Your task to perform on an android device: check the backup settings in the google photos Image 0: 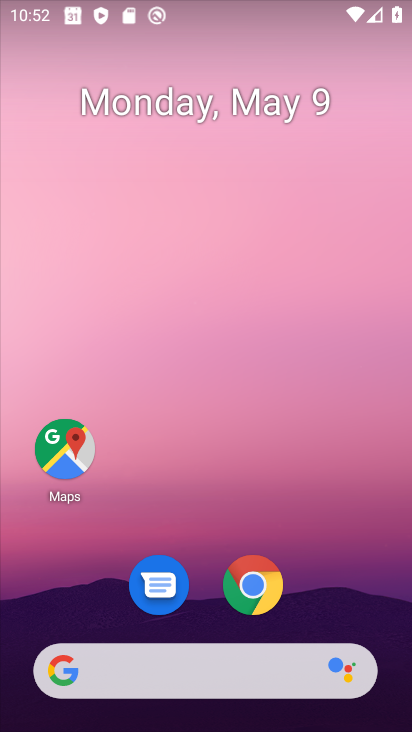
Step 0: drag from (315, 582) to (290, 44)
Your task to perform on an android device: check the backup settings in the google photos Image 1: 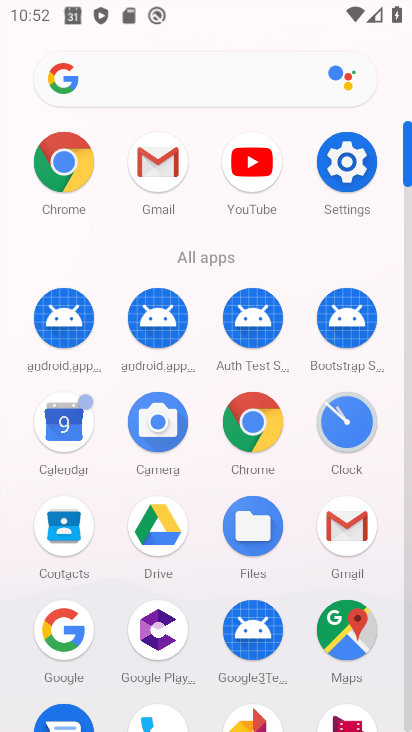
Step 1: click (261, 712)
Your task to perform on an android device: check the backup settings in the google photos Image 2: 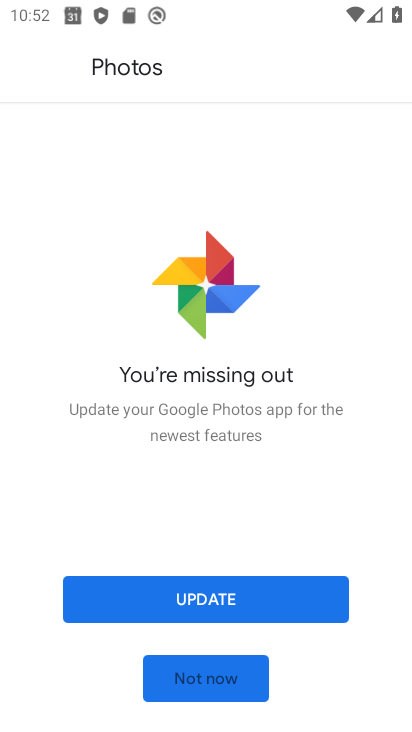
Step 2: click (243, 674)
Your task to perform on an android device: check the backup settings in the google photos Image 3: 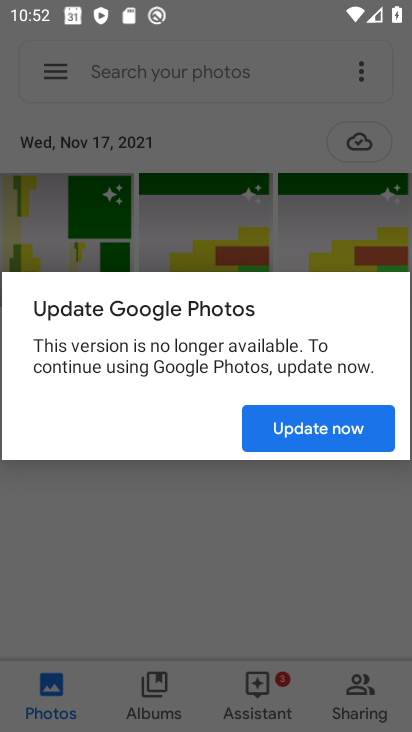
Step 3: click (344, 432)
Your task to perform on an android device: check the backup settings in the google photos Image 4: 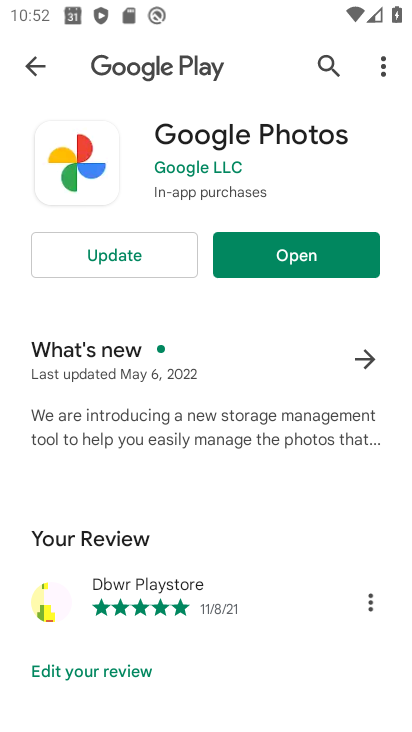
Step 4: click (313, 263)
Your task to perform on an android device: check the backup settings in the google photos Image 5: 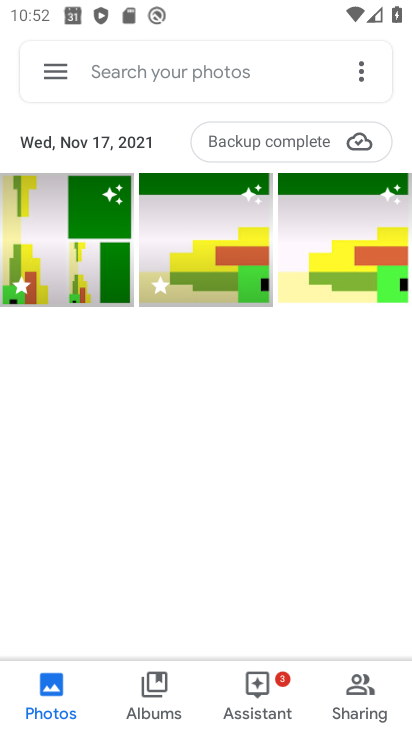
Step 5: click (63, 72)
Your task to perform on an android device: check the backup settings in the google photos Image 6: 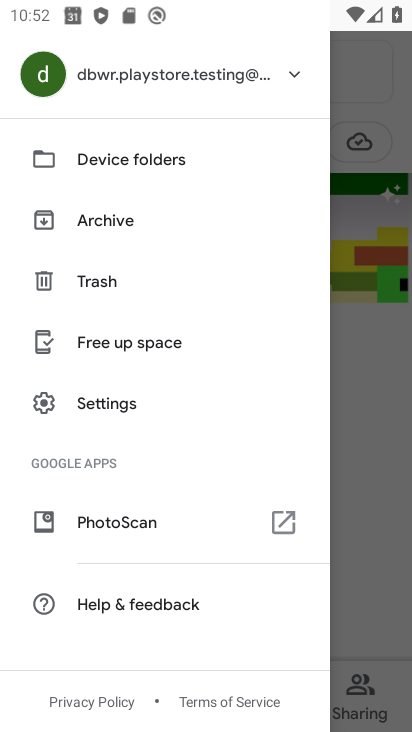
Step 6: click (142, 403)
Your task to perform on an android device: check the backup settings in the google photos Image 7: 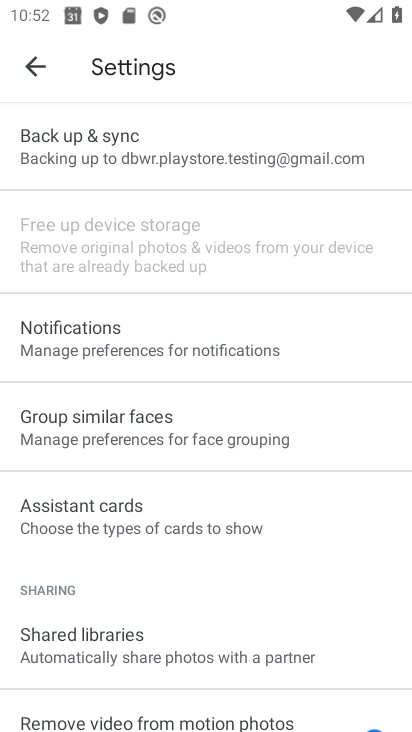
Step 7: click (175, 139)
Your task to perform on an android device: check the backup settings in the google photos Image 8: 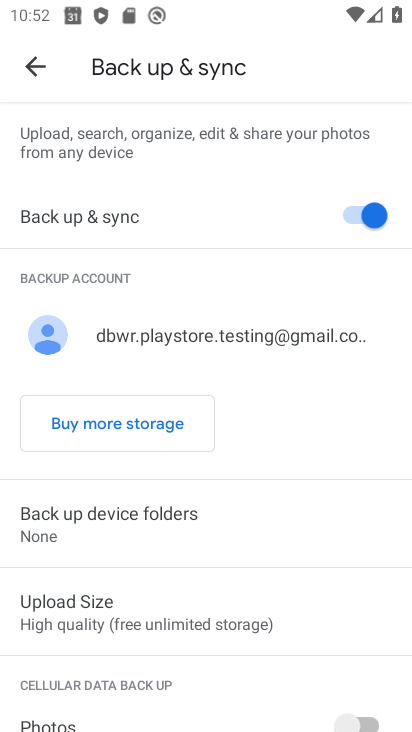
Step 8: task complete